Your task to perform on an android device: turn off wifi Image 0: 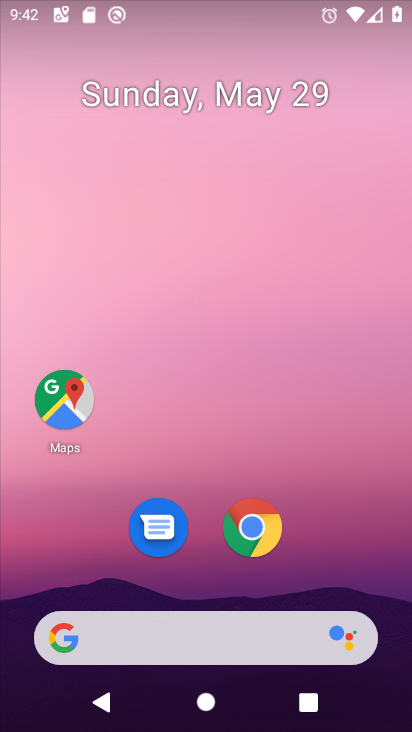
Step 0: press home button
Your task to perform on an android device: turn off wifi Image 1: 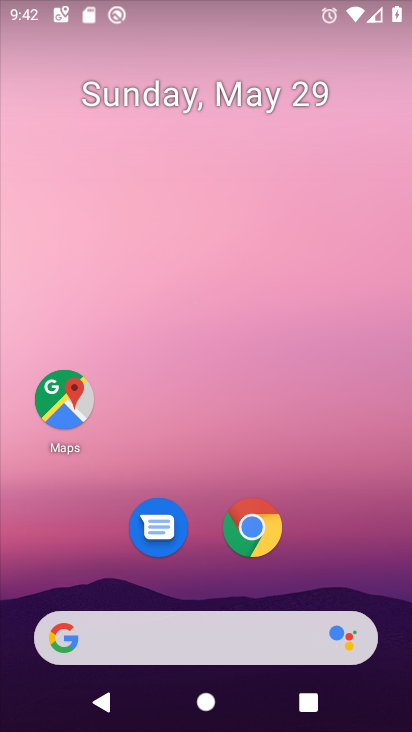
Step 1: drag from (224, 5) to (216, 467)
Your task to perform on an android device: turn off wifi Image 2: 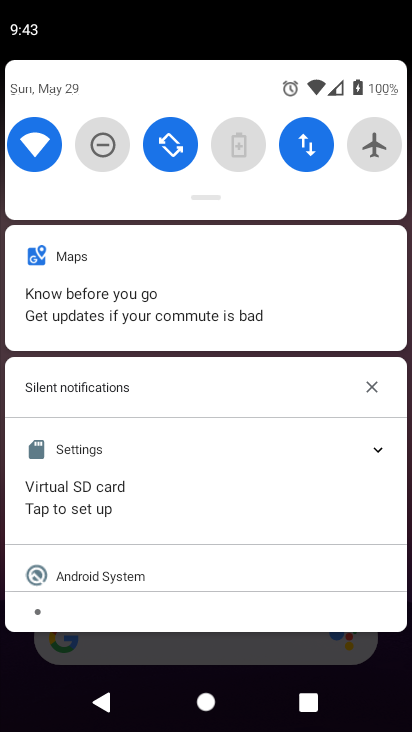
Step 2: click (32, 141)
Your task to perform on an android device: turn off wifi Image 3: 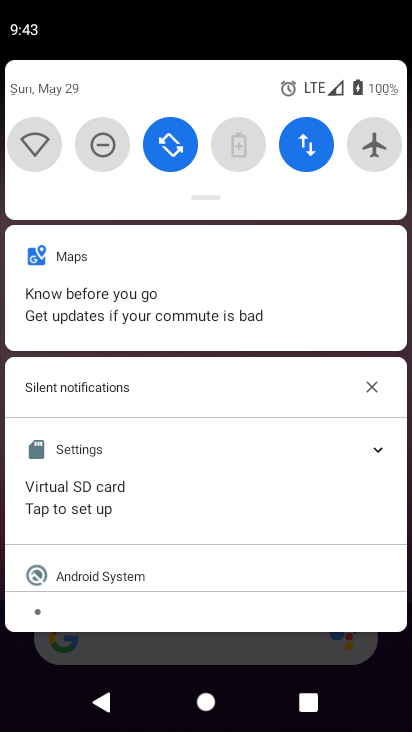
Step 3: task complete